Your task to perform on an android device: What is the recent news? Image 0: 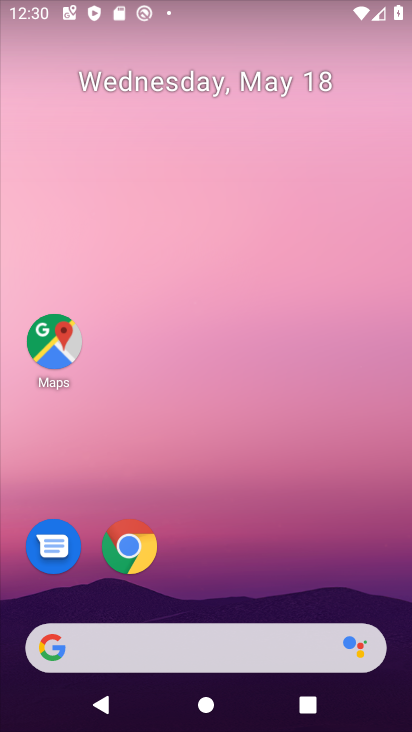
Step 0: press home button
Your task to perform on an android device: What is the recent news? Image 1: 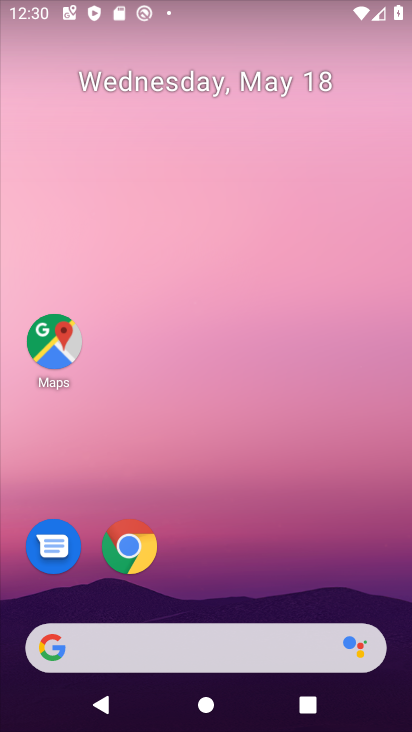
Step 1: drag from (221, 554) to (227, 84)
Your task to perform on an android device: What is the recent news? Image 2: 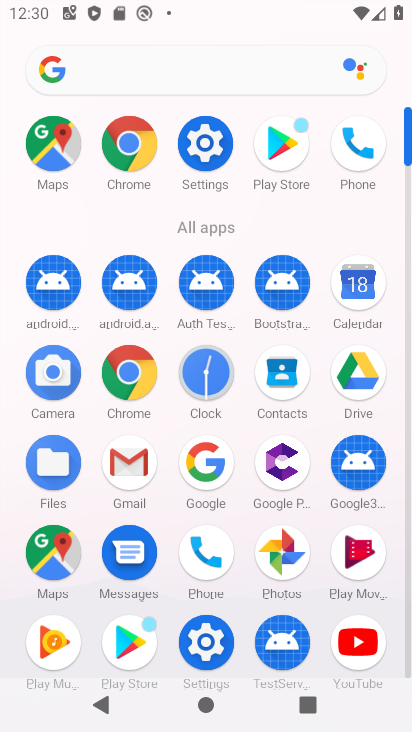
Step 2: click (134, 383)
Your task to perform on an android device: What is the recent news? Image 3: 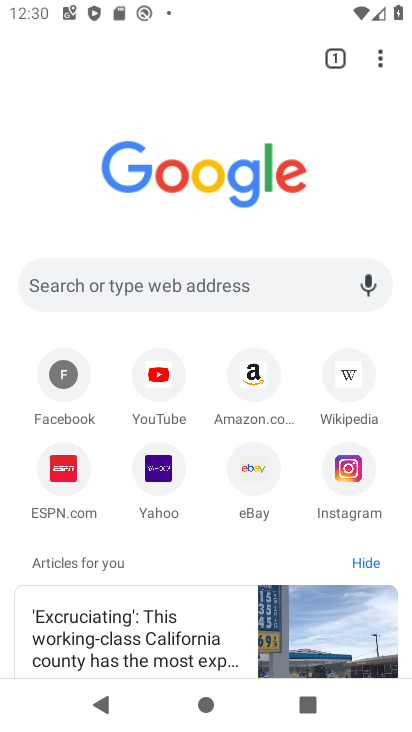
Step 3: click (187, 276)
Your task to perform on an android device: What is the recent news? Image 4: 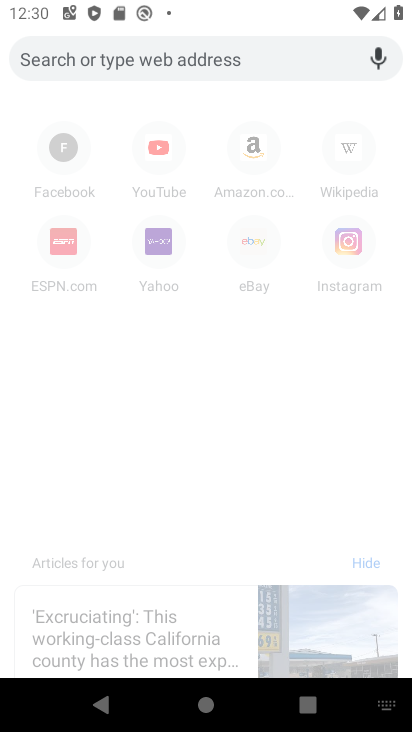
Step 4: type "What is the recent news?"
Your task to perform on an android device: What is the recent news? Image 5: 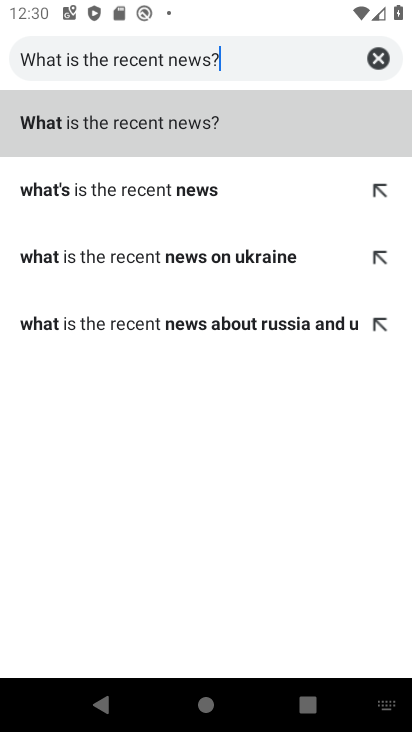
Step 5: click (183, 118)
Your task to perform on an android device: What is the recent news? Image 6: 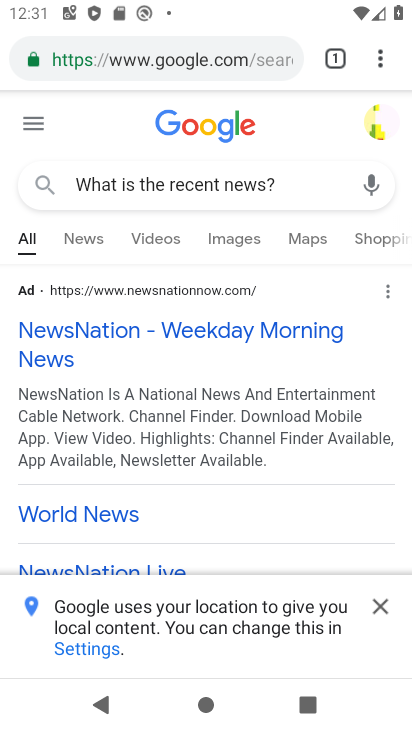
Step 6: task complete